Your task to perform on an android device: Open settings Image 0: 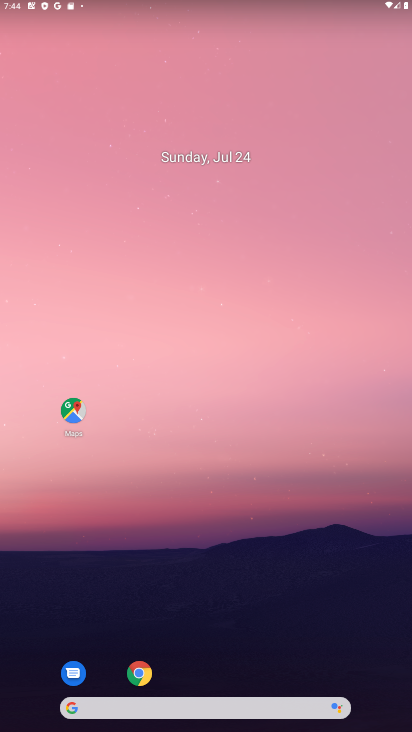
Step 0: click (128, 672)
Your task to perform on an android device: Open settings Image 1: 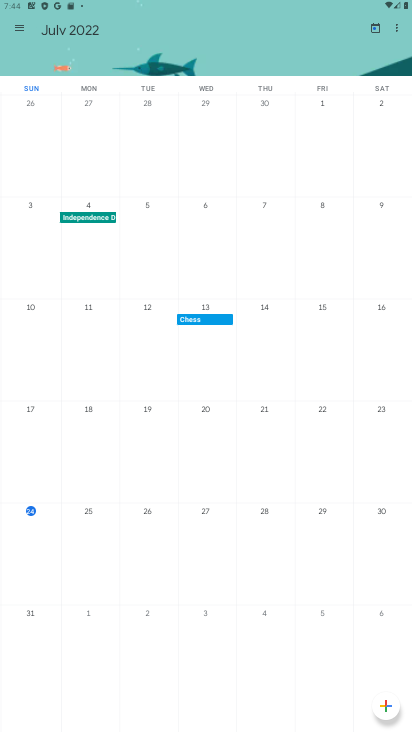
Step 1: press home button
Your task to perform on an android device: Open settings Image 2: 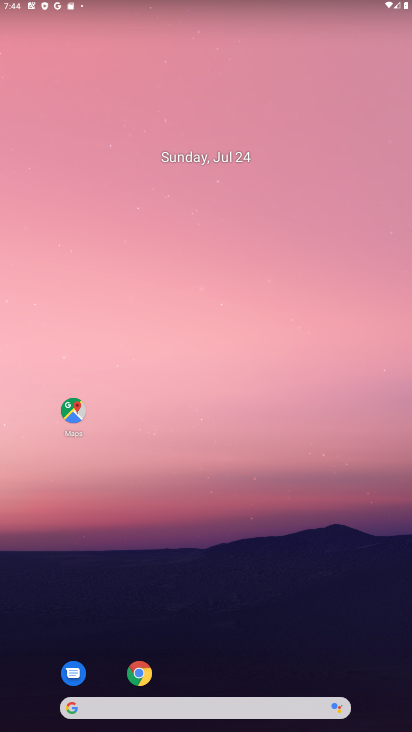
Step 2: drag from (31, 675) to (258, 153)
Your task to perform on an android device: Open settings Image 3: 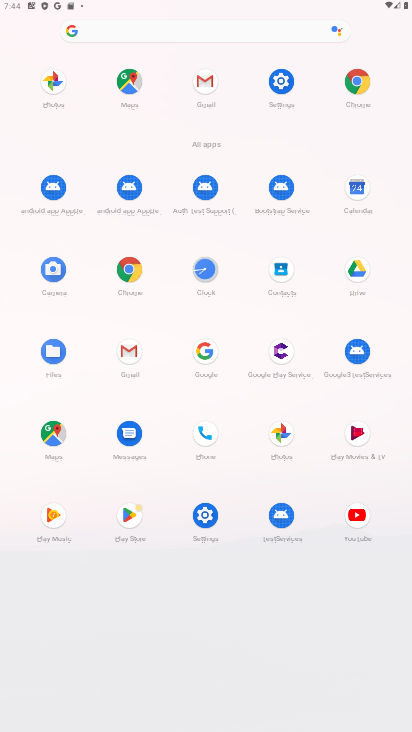
Step 3: click (203, 515)
Your task to perform on an android device: Open settings Image 4: 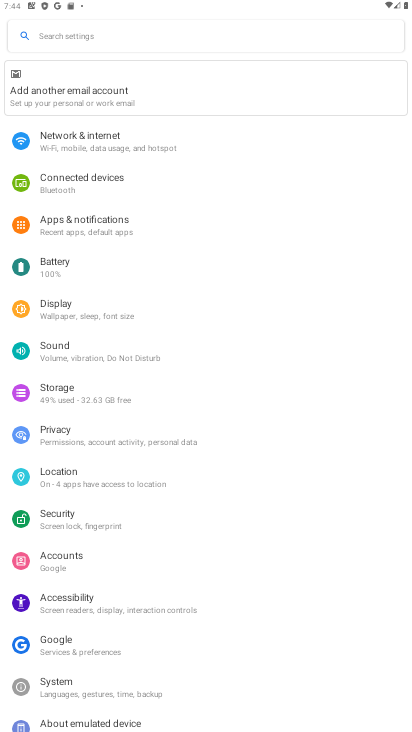
Step 4: task complete